Your task to perform on an android device: change timer sound Image 0: 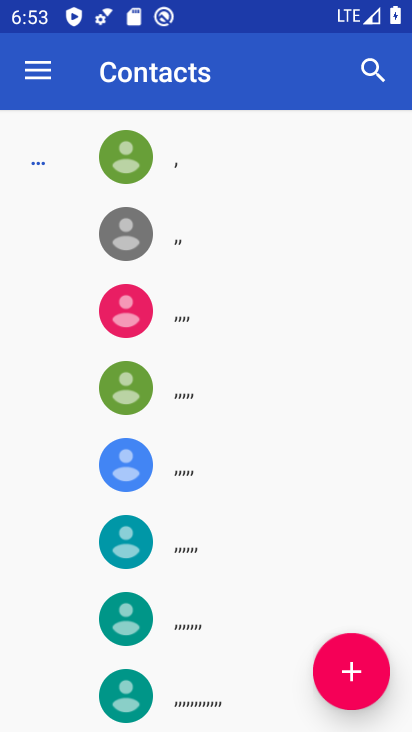
Step 0: drag from (307, 600) to (330, 354)
Your task to perform on an android device: change timer sound Image 1: 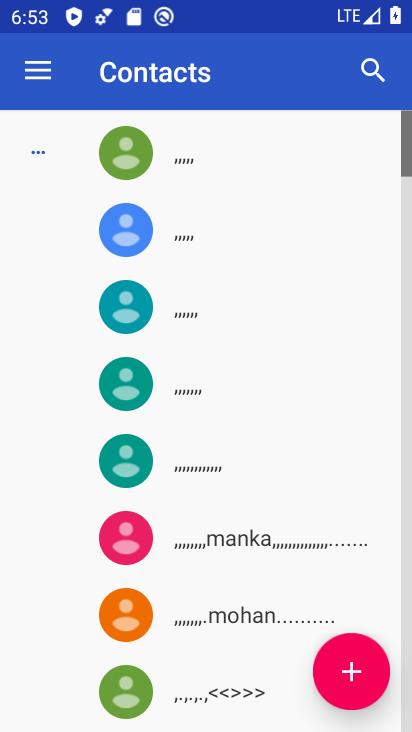
Step 1: press home button
Your task to perform on an android device: change timer sound Image 2: 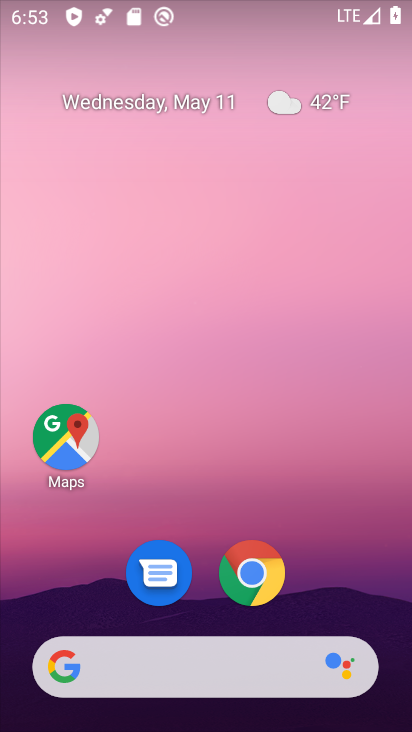
Step 2: drag from (331, 597) to (327, 198)
Your task to perform on an android device: change timer sound Image 3: 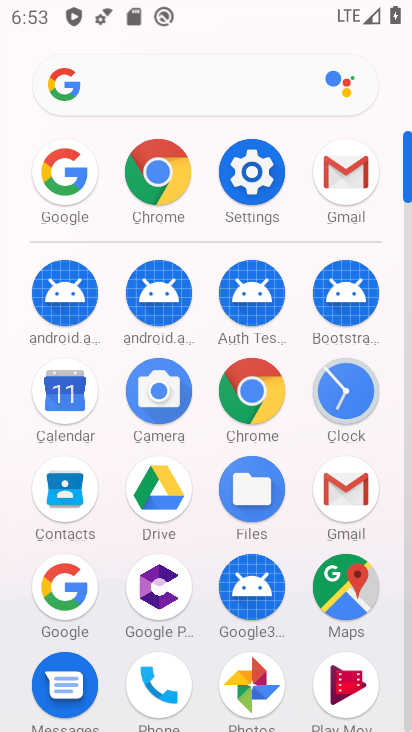
Step 3: click (352, 407)
Your task to perform on an android device: change timer sound Image 4: 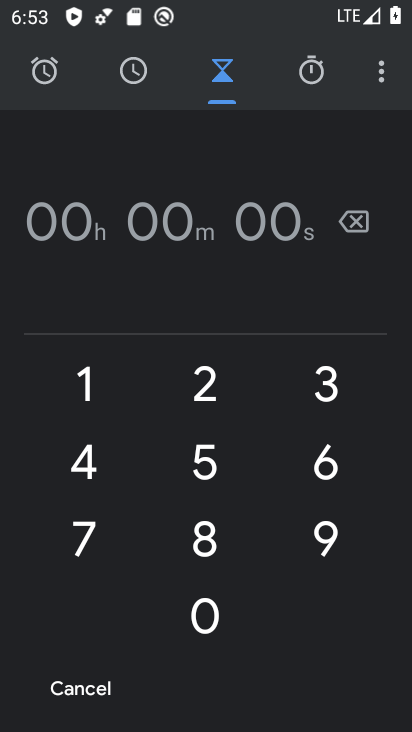
Step 4: click (385, 75)
Your task to perform on an android device: change timer sound Image 5: 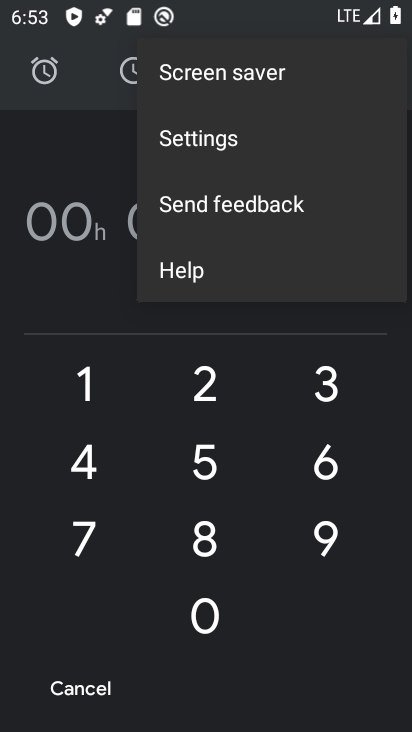
Step 5: click (222, 143)
Your task to perform on an android device: change timer sound Image 6: 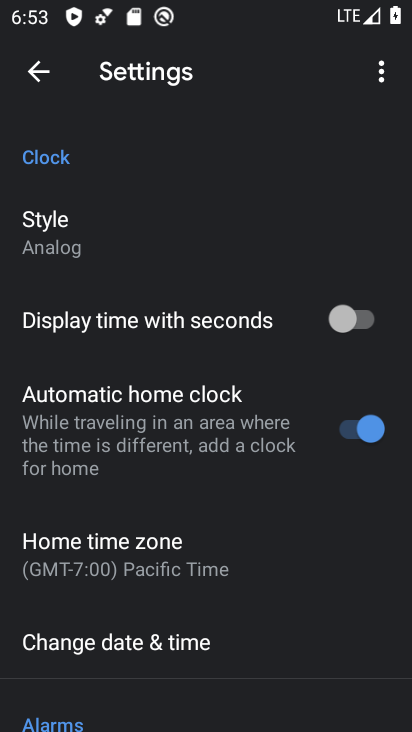
Step 6: drag from (209, 364) to (219, 295)
Your task to perform on an android device: change timer sound Image 7: 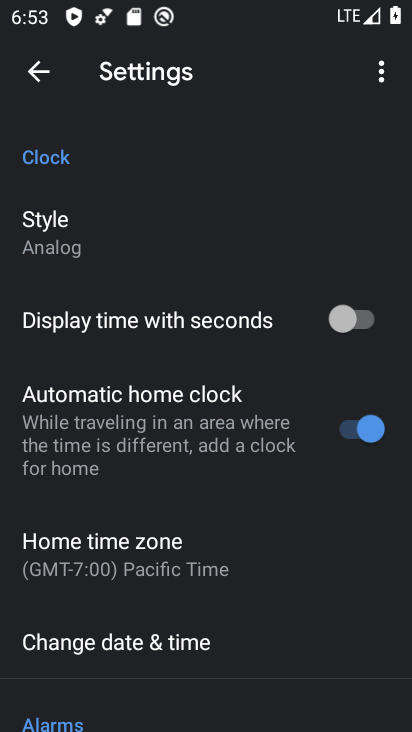
Step 7: drag from (188, 650) to (184, 276)
Your task to perform on an android device: change timer sound Image 8: 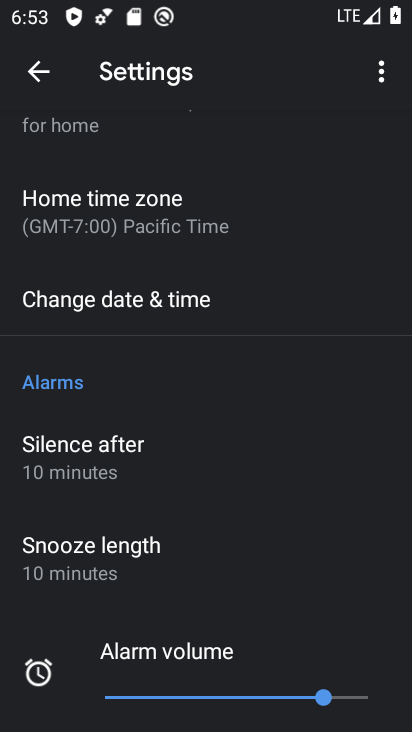
Step 8: drag from (180, 387) to (185, 327)
Your task to perform on an android device: change timer sound Image 9: 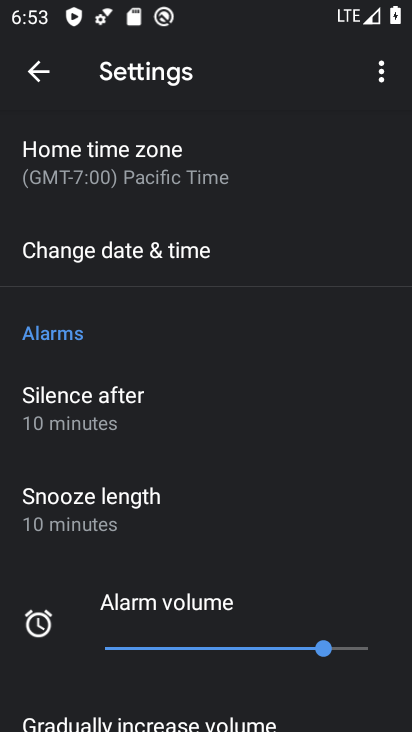
Step 9: drag from (184, 580) to (221, 330)
Your task to perform on an android device: change timer sound Image 10: 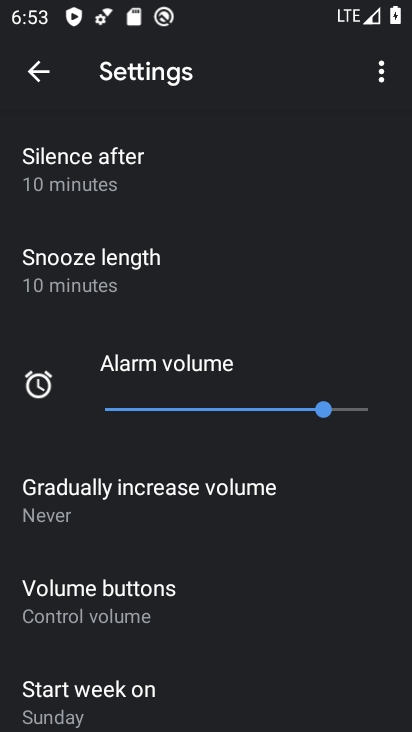
Step 10: drag from (171, 603) to (201, 314)
Your task to perform on an android device: change timer sound Image 11: 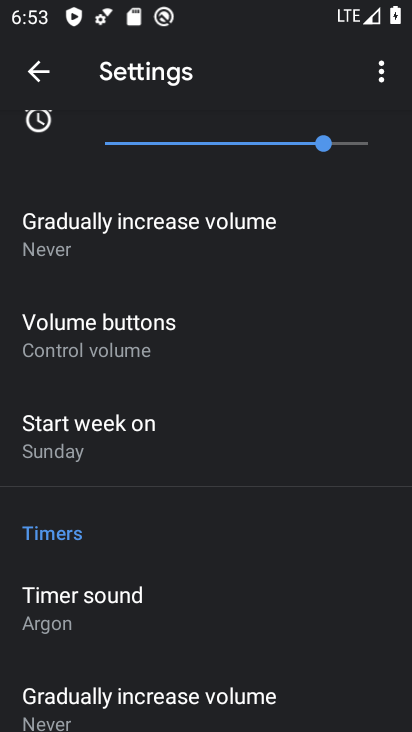
Step 11: click (114, 607)
Your task to perform on an android device: change timer sound Image 12: 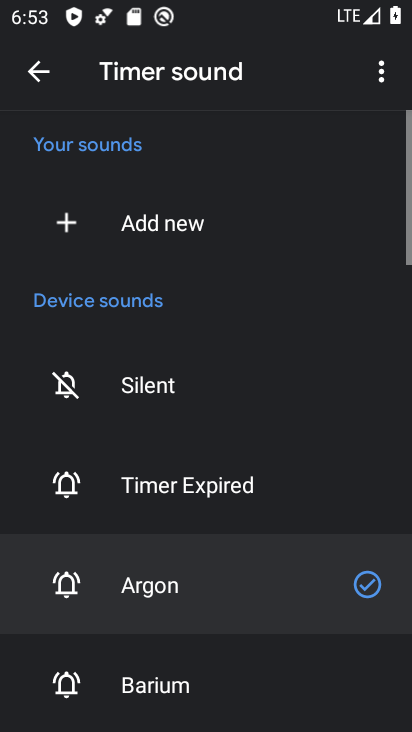
Step 12: click (114, 674)
Your task to perform on an android device: change timer sound Image 13: 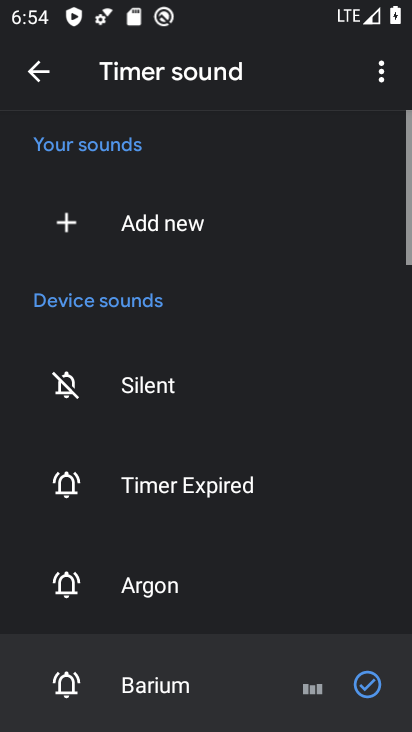
Step 13: task complete